Your task to perform on an android device: Open network settings Image 0: 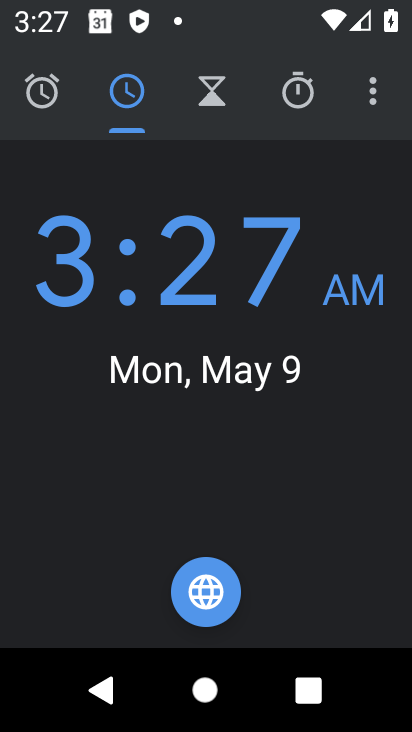
Step 0: press home button
Your task to perform on an android device: Open network settings Image 1: 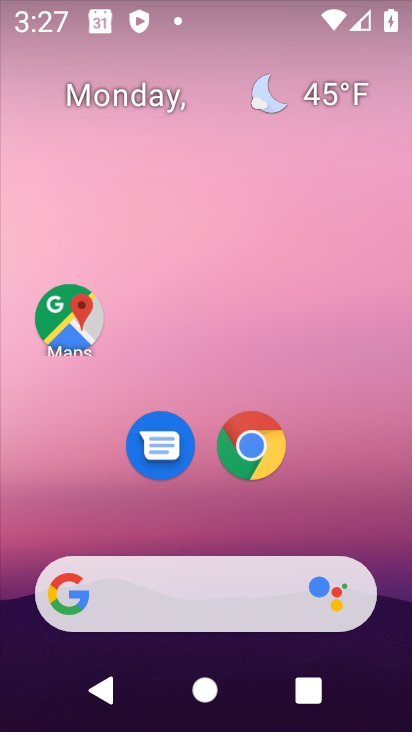
Step 1: drag from (349, 523) to (306, 57)
Your task to perform on an android device: Open network settings Image 2: 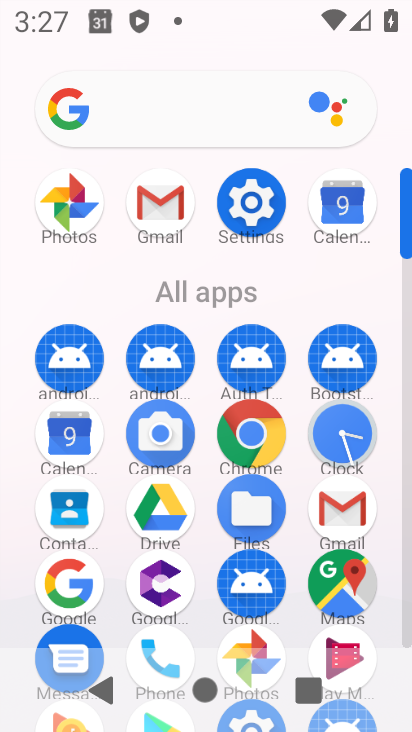
Step 2: click (240, 203)
Your task to perform on an android device: Open network settings Image 3: 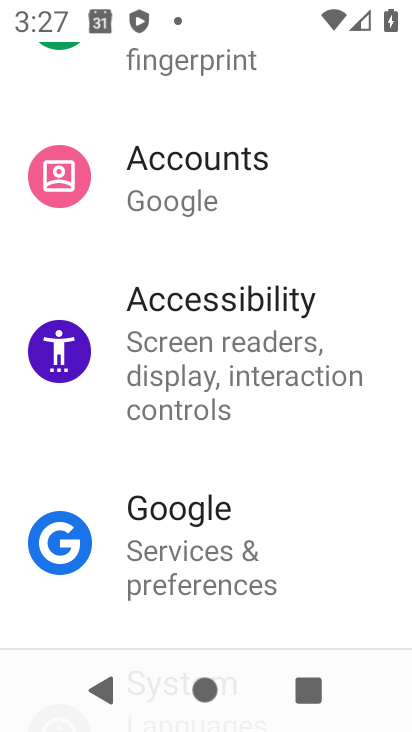
Step 3: drag from (177, 217) to (259, 519)
Your task to perform on an android device: Open network settings Image 4: 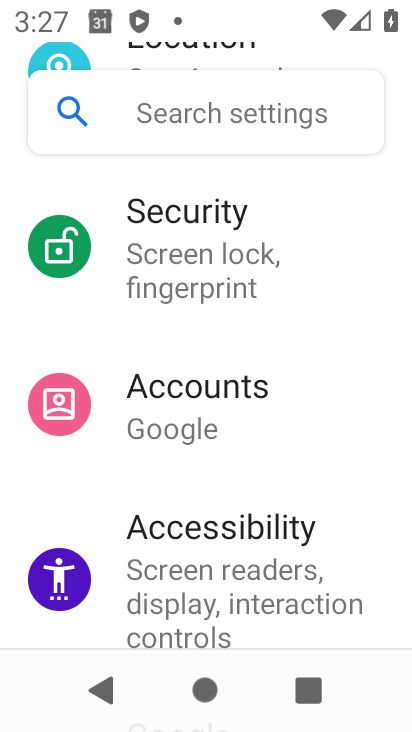
Step 4: drag from (205, 314) to (246, 474)
Your task to perform on an android device: Open network settings Image 5: 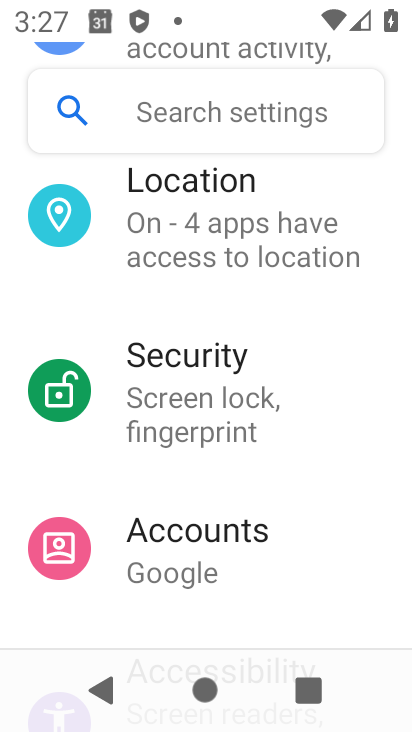
Step 5: drag from (237, 316) to (271, 520)
Your task to perform on an android device: Open network settings Image 6: 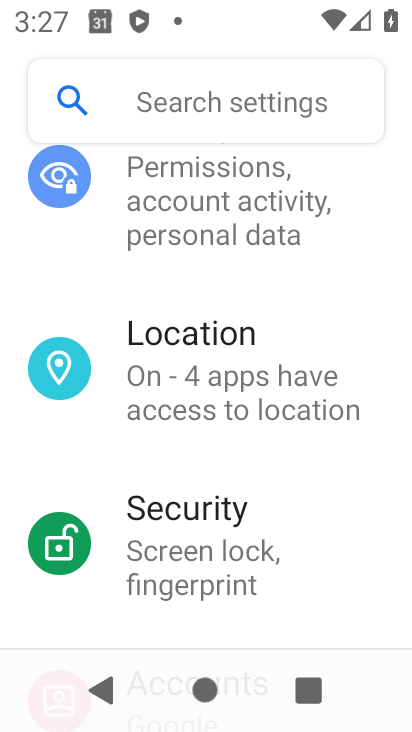
Step 6: drag from (228, 353) to (267, 491)
Your task to perform on an android device: Open network settings Image 7: 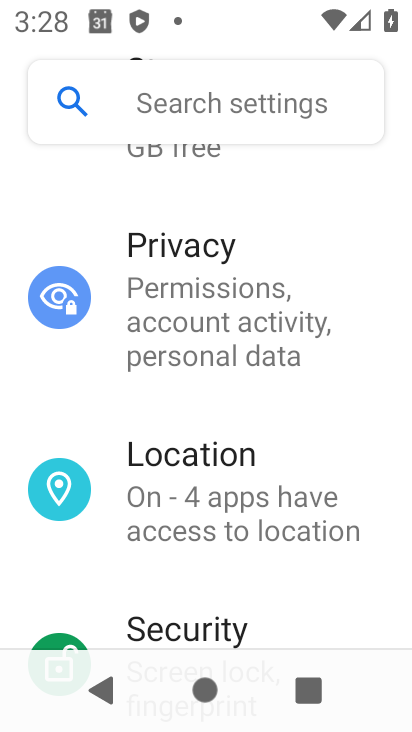
Step 7: drag from (193, 331) to (213, 591)
Your task to perform on an android device: Open network settings Image 8: 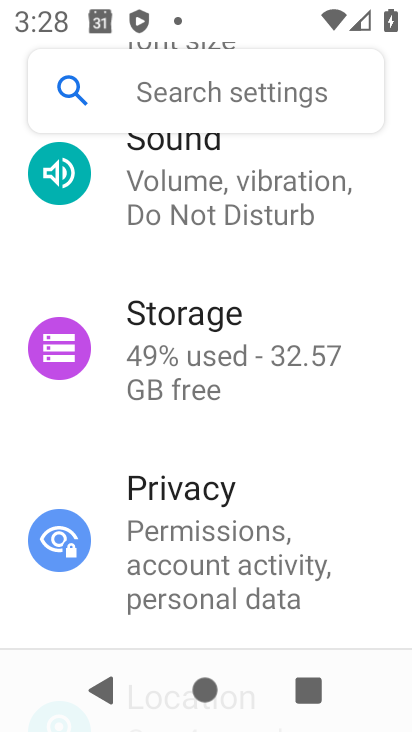
Step 8: drag from (177, 242) to (187, 413)
Your task to perform on an android device: Open network settings Image 9: 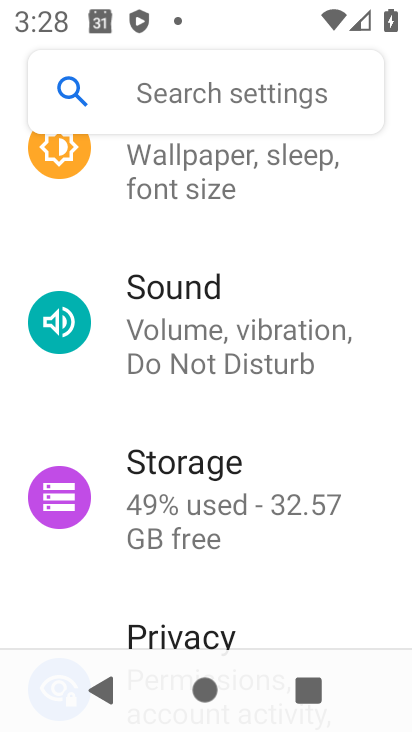
Step 9: drag from (161, 234) to (179, 450)
Your task to perform on an android device: Open network settings Image 10: 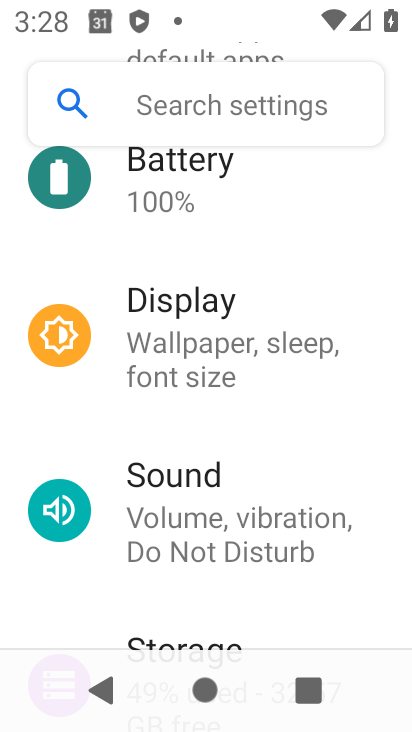
Step 10: drag from (201, 184) to (221, 519)
Your task to perform on an android device: Open network settings Image 11: 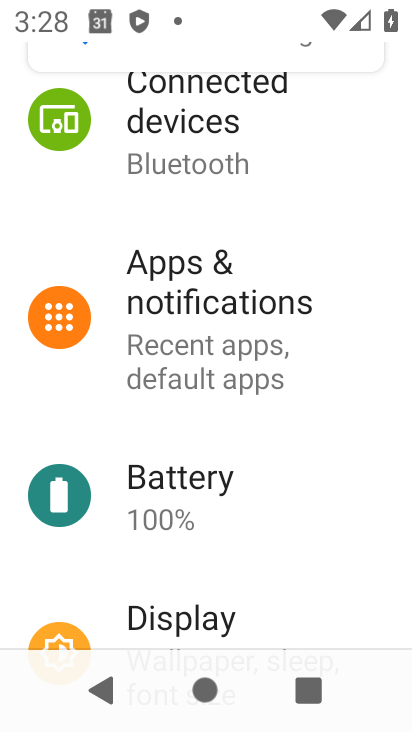
Step 11: drag from (173, 289) to (211, 491)
Your task to perform on an android device: Open network settings Image 12: 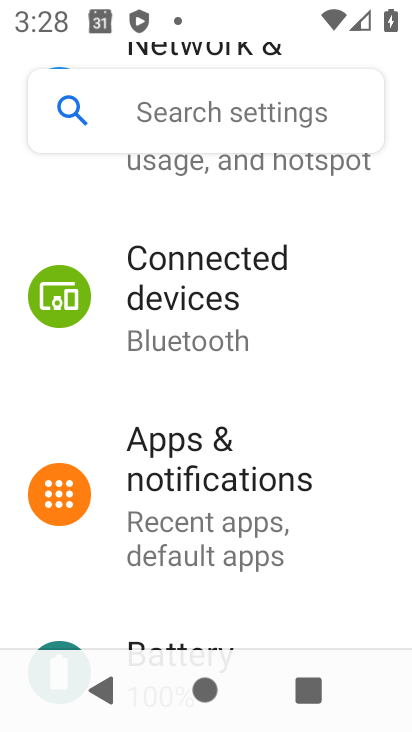
Step 12: drag from (162, 199) to (205, 585)
Your task to perform on an android device: Open network settings Image 13: 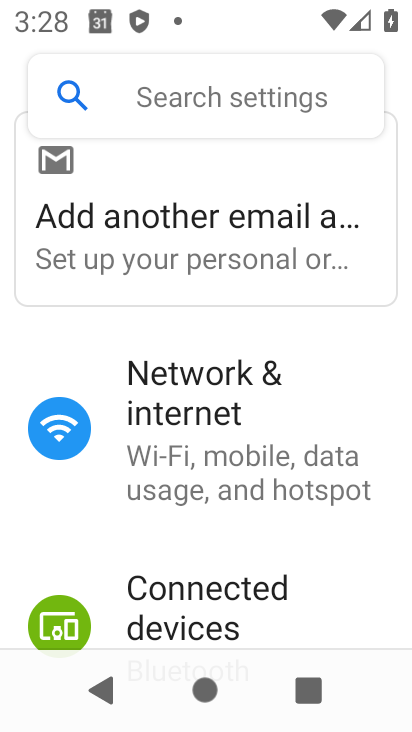
Step 13: click (193, 412)
Your task to perform on an android device: Open network settings Image 14: 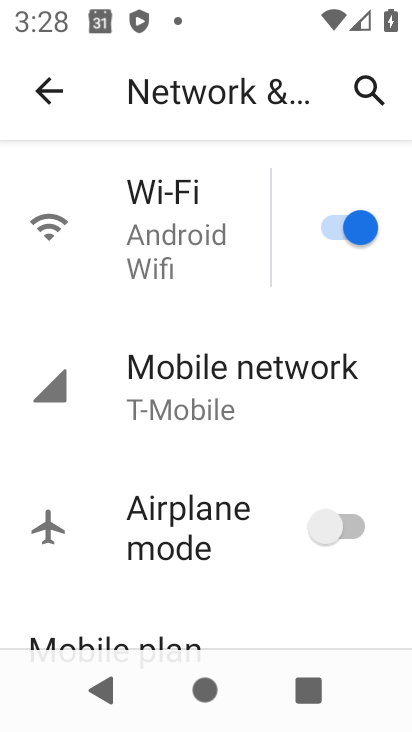
Step 14: click (161, 399)
Your task to perform on an android device: Open network settings Image 15: 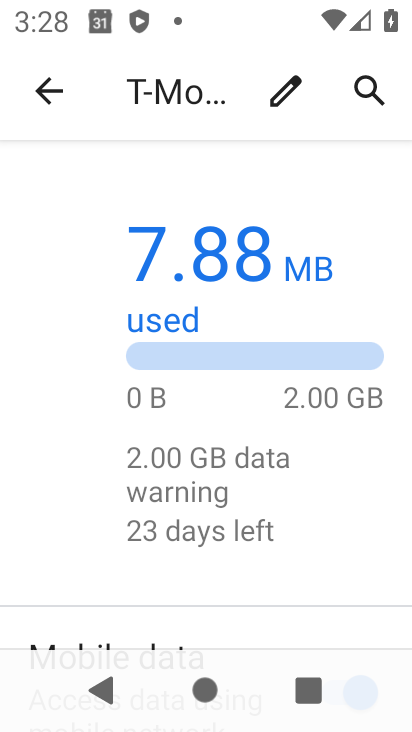
Step 15: task complete